Your task to perform on an android device: Open Yahoo.com Image 0: 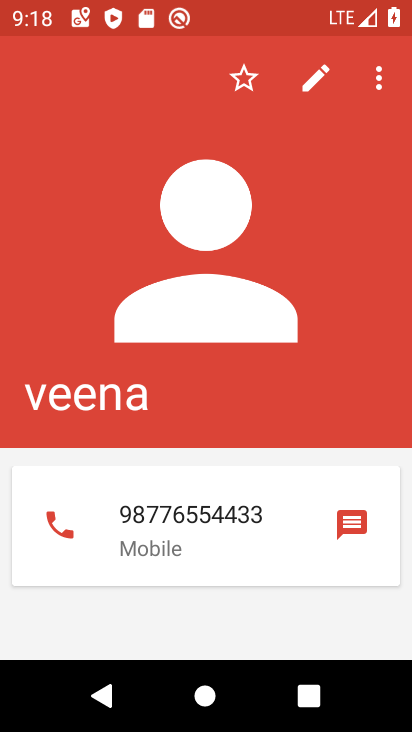
Step 0: press home button
Your task to perform on an android device: Open Yahoo.com Image 1: 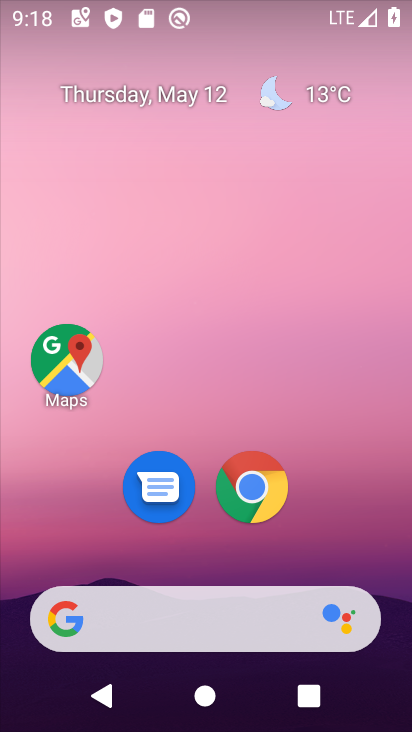
Step 1: click (243, 494)
Your task to perform on an android device: Open Yahoo.com Image 2: 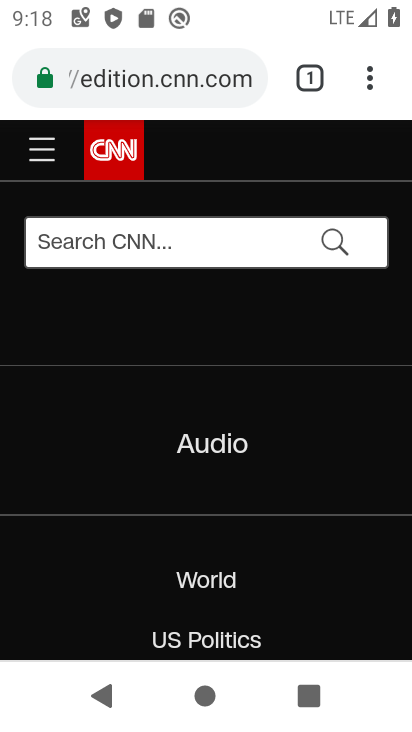
Step 2: click (129, 79)
Your task to perform on an android device: Open Yahoo.com Image 3: 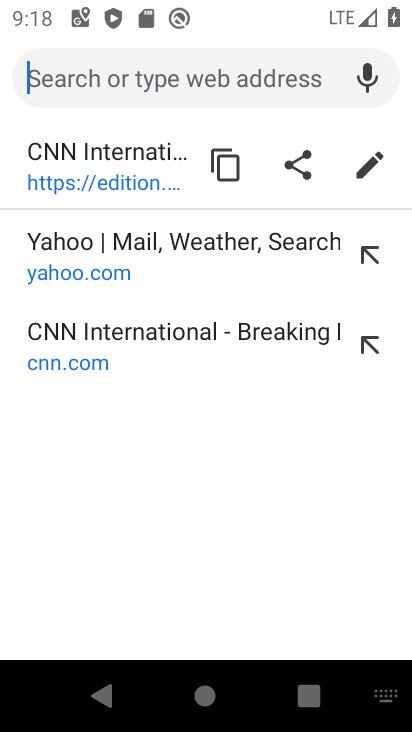
Step 3: click (84, 241)
Your task to perform on an android device: Open Yahoo.com Image 4: 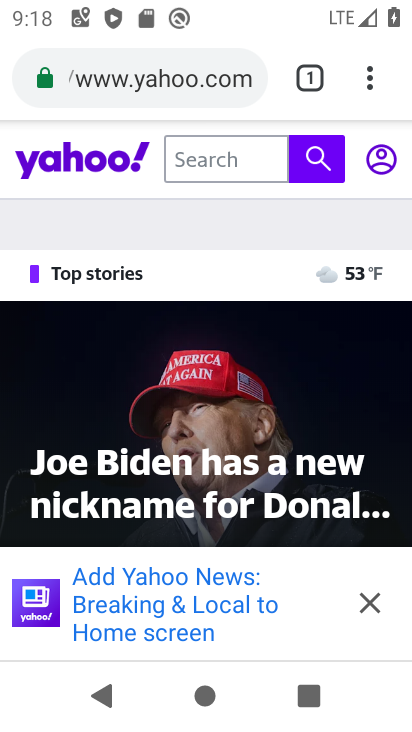
Step 4: task complete